Your task to perform on an android device: Open privacy settings Image 0: 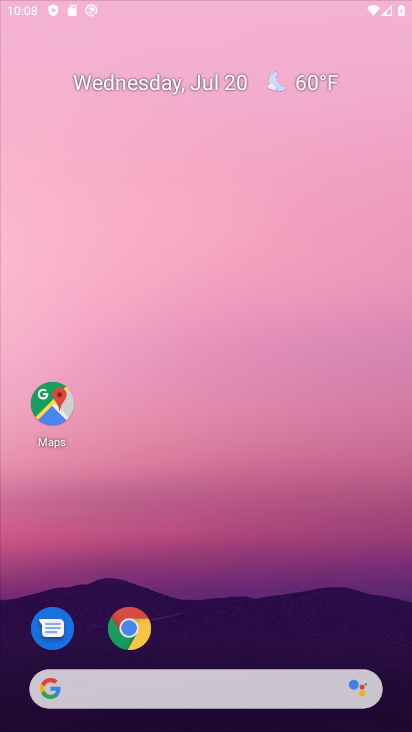
Step 0: drag from (200, 61) to (191, 5)
Your task to perform on an android device: Open privacy settings Image 1: 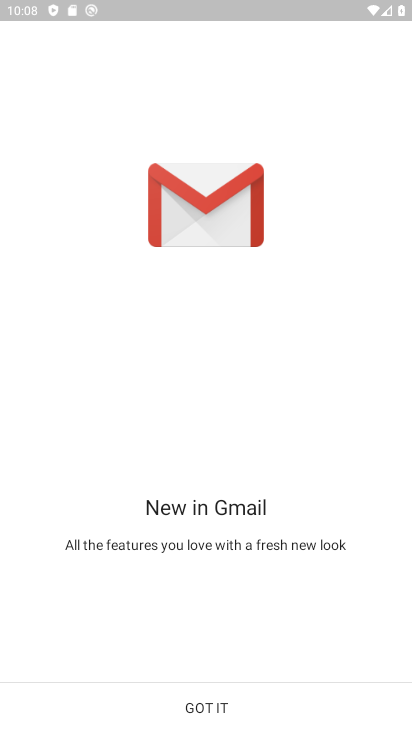
Step 1: click (231, 717)
Your task to perform on an android device: Open privacy settings Image 2: 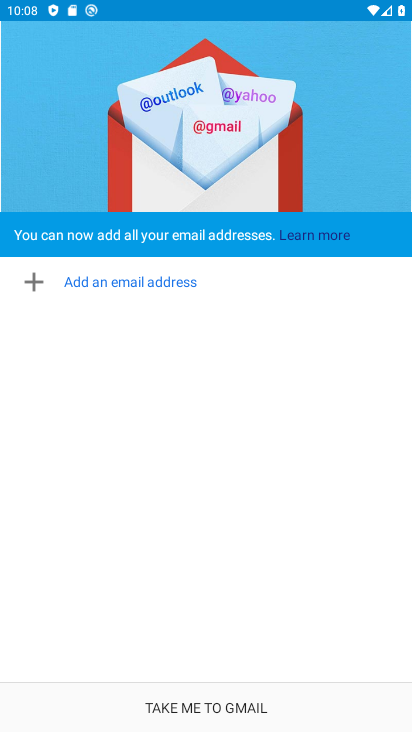
Step 2: click (232, 713)
Your task to perform on an android device: Open privacy settings Image 3: 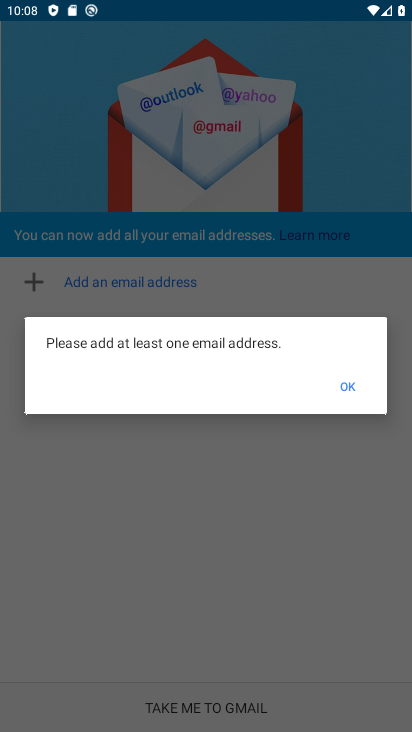
Step 3: click (361, 386)
Your task to perform on an android device: Open privacy settings Image 4: 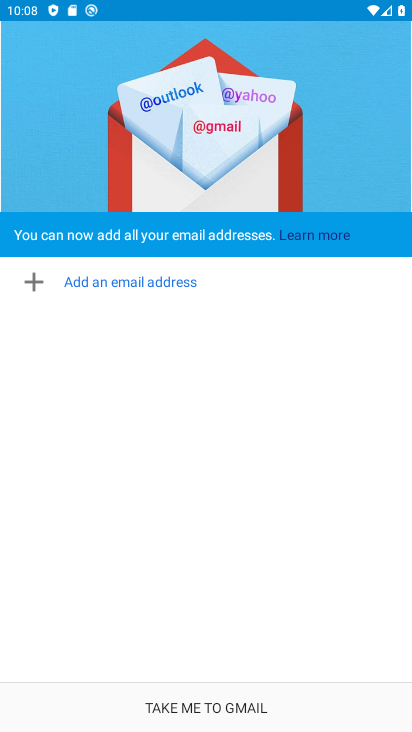
Step 4: click (180, 715)
Your task to perform on an android device: Open privacy settings Image 5: 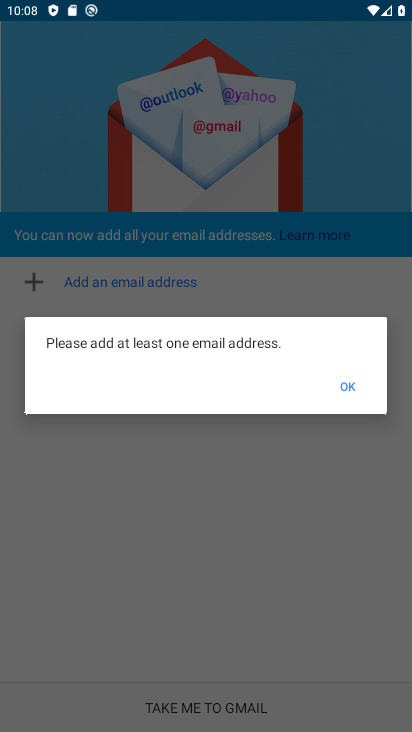
Step 5: task complete